Your task to perform on an android device: toggle notifications settings in the gmail app Image 0: 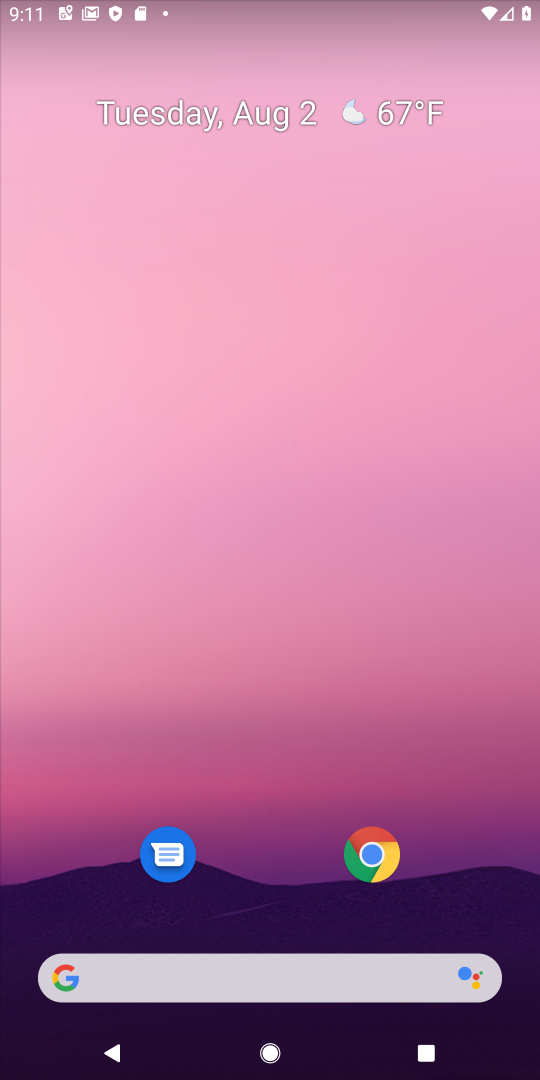
Step 0: drag from (277, 927) to (0, 911)
Your task to perform on an android device: toggle notifications settings in the gmail app Image 1: 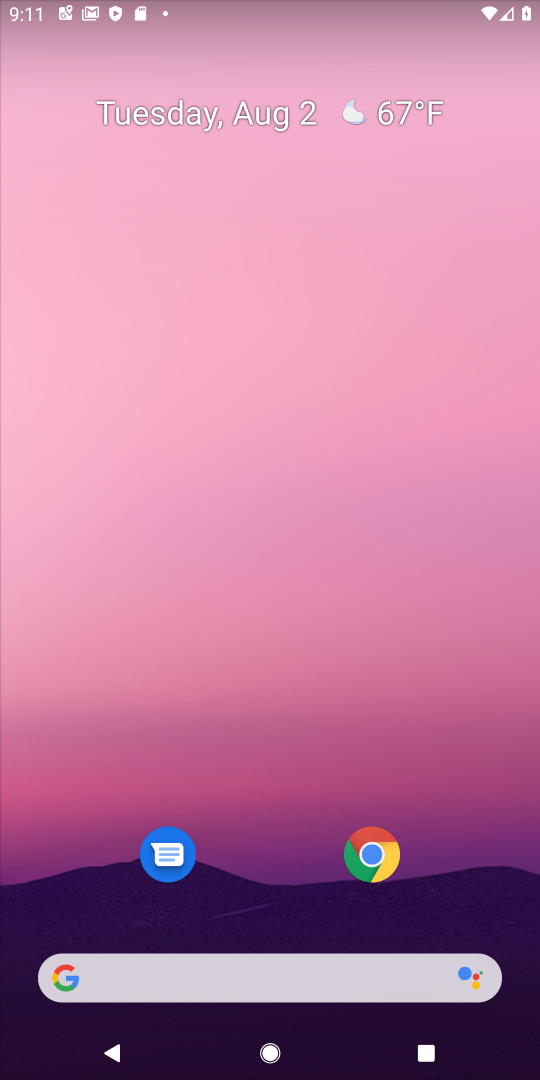
Step 1: drag from (314, 931) to (296, 16)
Your task to perform on an android device: toggle notifications settings in the gmail app Image 2: 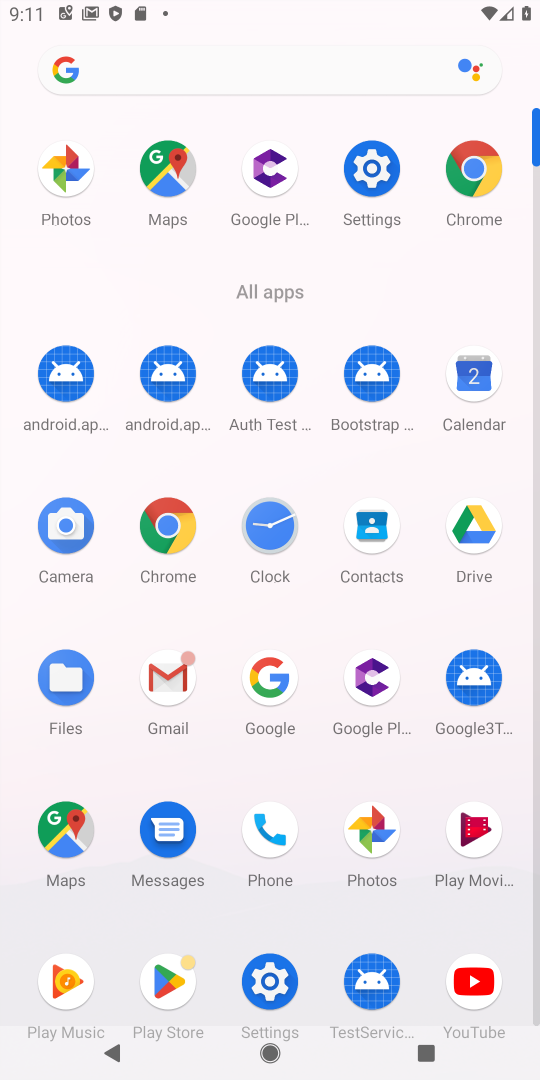
Step 2: click (164, 676)
Your task to perform on an android device: toggle notifications settings in the gmail app Image 3: 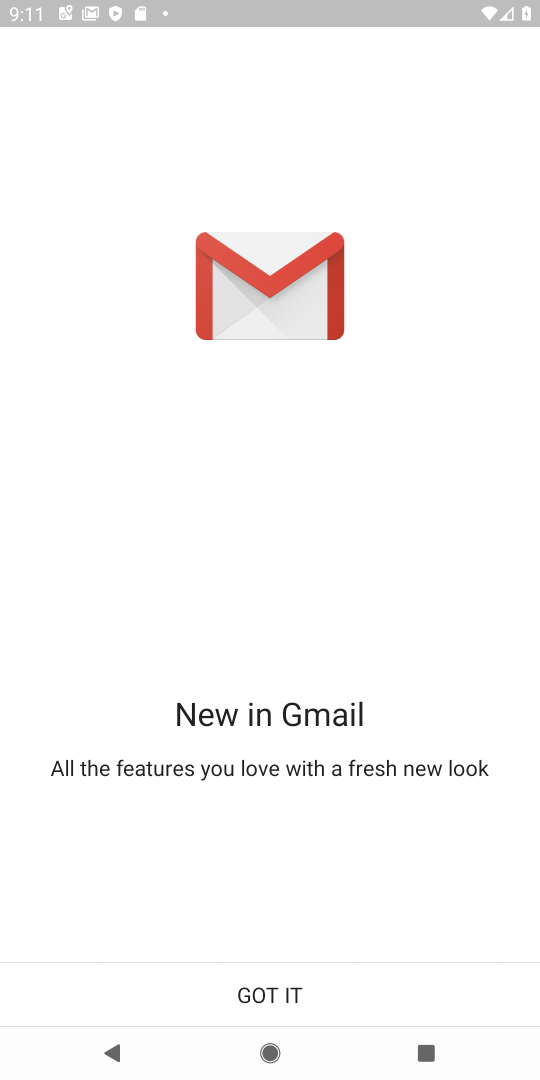
Step 3: click (277, 990)
Your task to perform on an android device: toggle notifications settings in the gmail app Image 4: 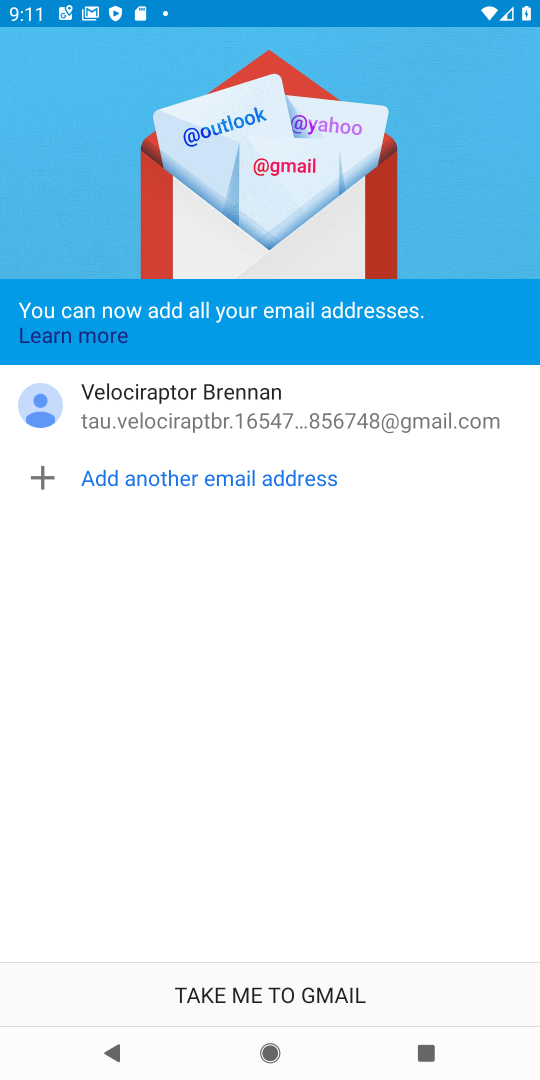
Step 4: click (270, 975)
Your task to perform on an android device: toggle notifications settings in the gmail app Image 5: 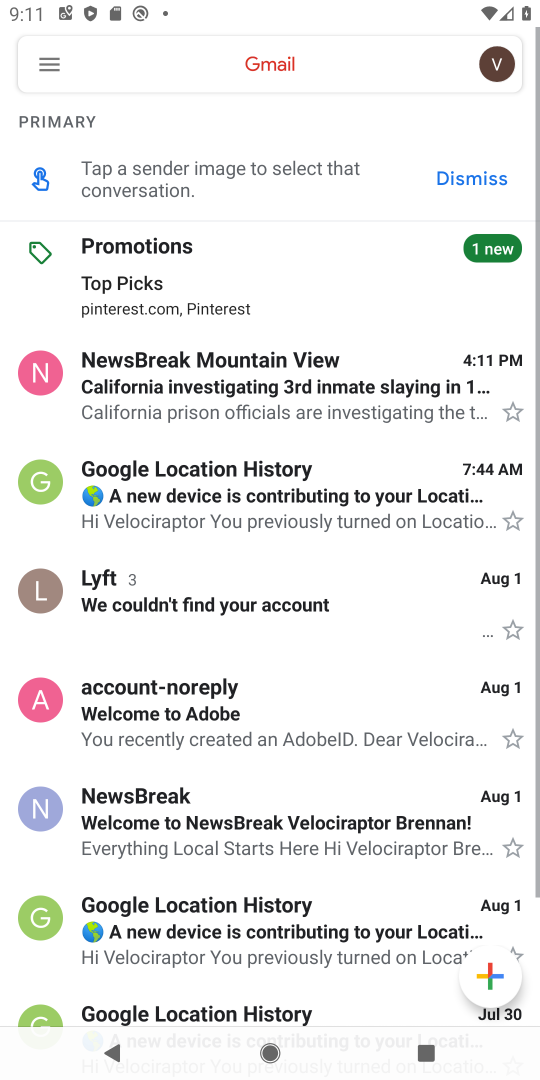
Step 5: click (39, 55)
Your task to perform on an android device: toggle notifications settings in the gmail app Image 6: 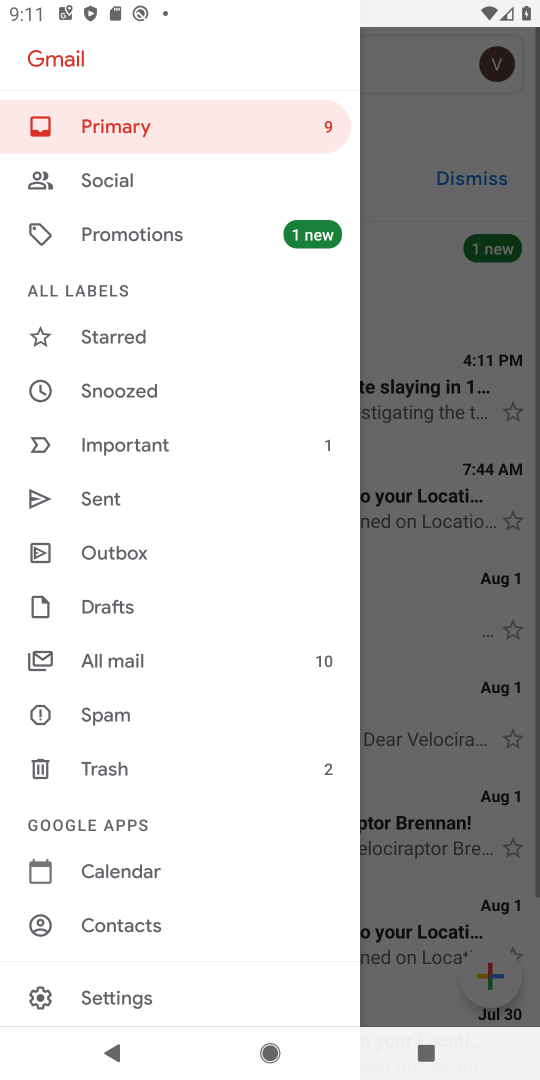
Step 6: click (107, 990)
Your task to perform on an android device: toggle notifications settings in the gmail app Image 7: 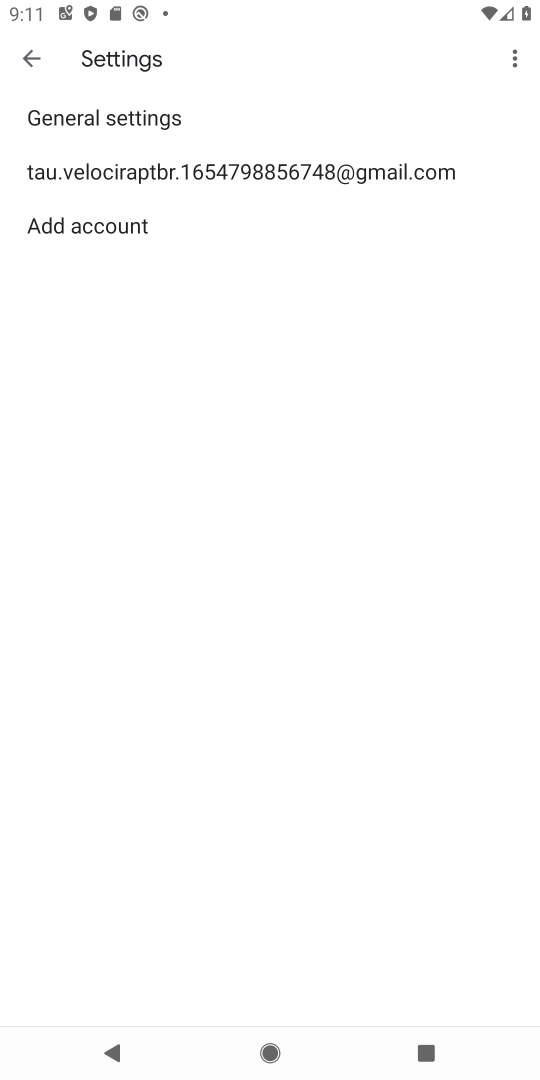
Step 7: click (105, 106)
Your task to perform on an android device: toggle notifications settings in the gmail app Image 8: 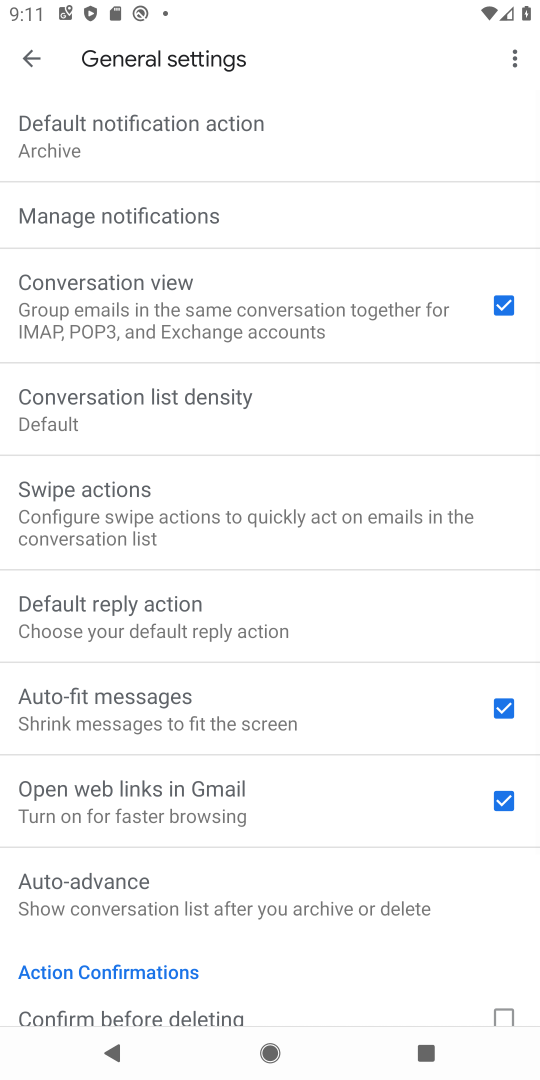
Step 8: click (201, 222)
Your task to perform on an android device: toggle notifications settings in the gmail app Image 9: 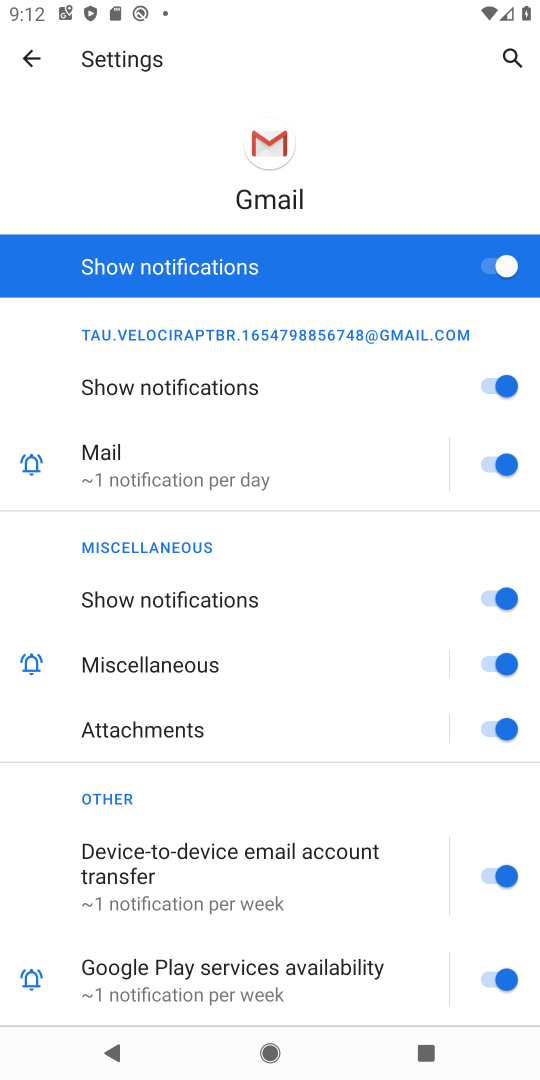
Step 9: click (497, 253)
Your task to perform on an android device: toggle notifications settings in the gmail app Image 10: 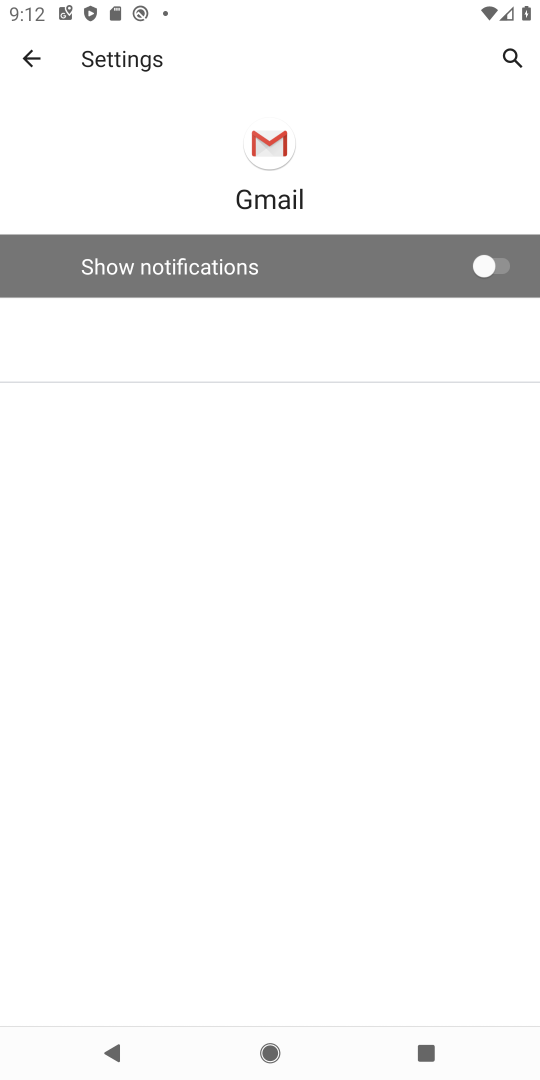
Step 10: task complete